Your task to perform on an android device: Is it going to rain this weekend? Image 0: 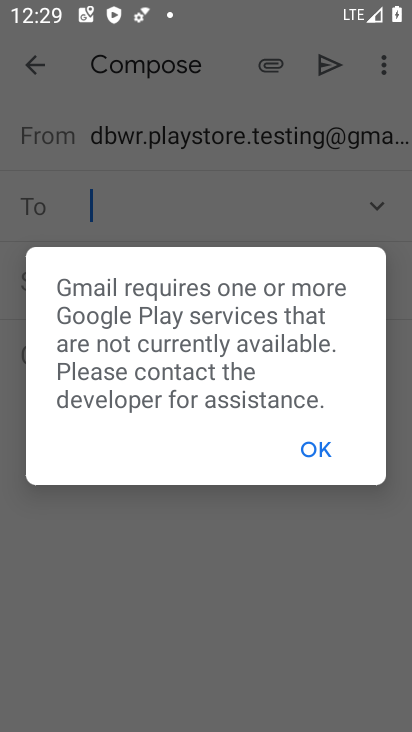
Step 0: press back button
Your task to perform on an android device: Is it going to rain this weekend? Image 1: 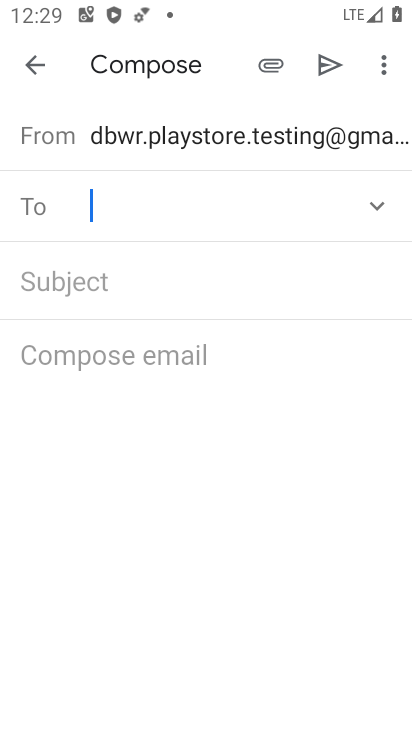
Step 1: press back button
Your task to perform on an android device: Is it going to rain this weekend? Image 2: 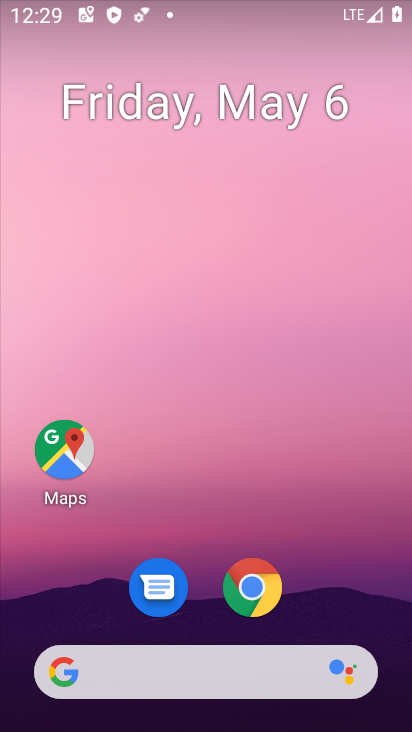
Step 2: drag from (188, 608) to (281, 46)
Your task to perform on an android device: Is it going to rain this weekend? Image 3: 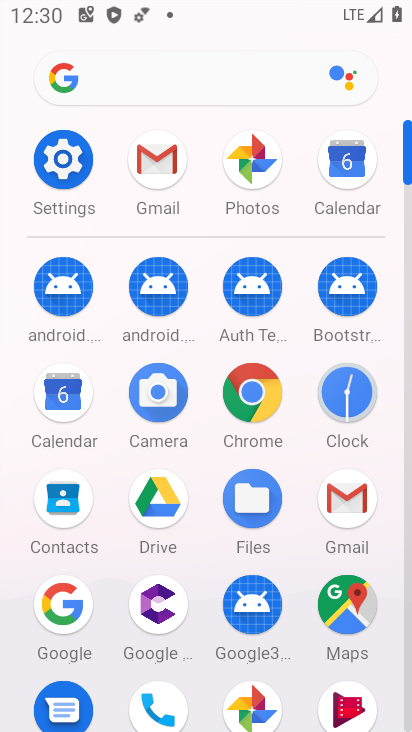
Step 3: click (176, 83)
Your task to perform on an android device: Is it going to rain this weekend? Image 4: 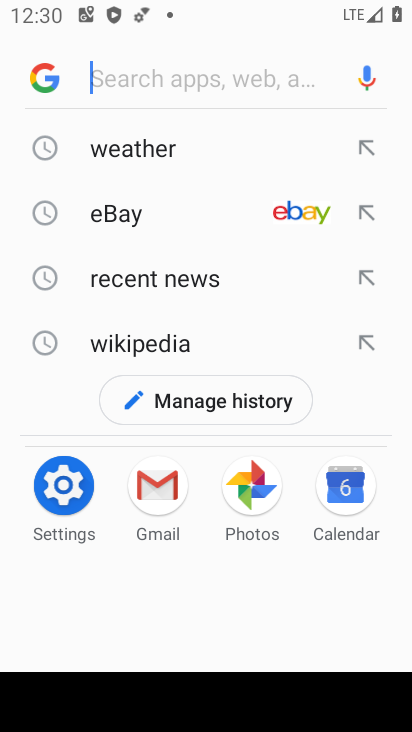
Step 4: click (162, 152)
Your task to perform on an android device: Is it going to rain this weekend? Image 5: 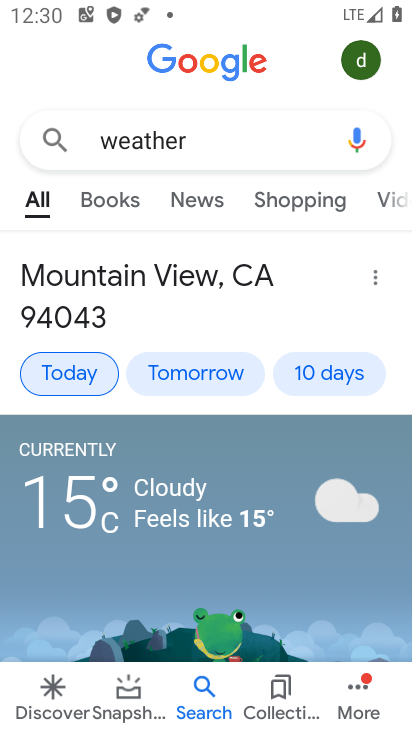
Step 5: click (310, 365)
Your task to perform on an android device: Is it going to rain this weekend? Image 6: 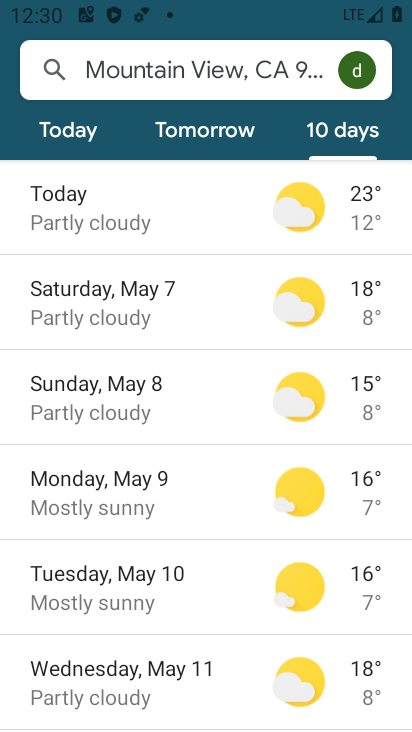
Step 6: task complete